Your task to perform on an android device: Go to Amazon Image 0: 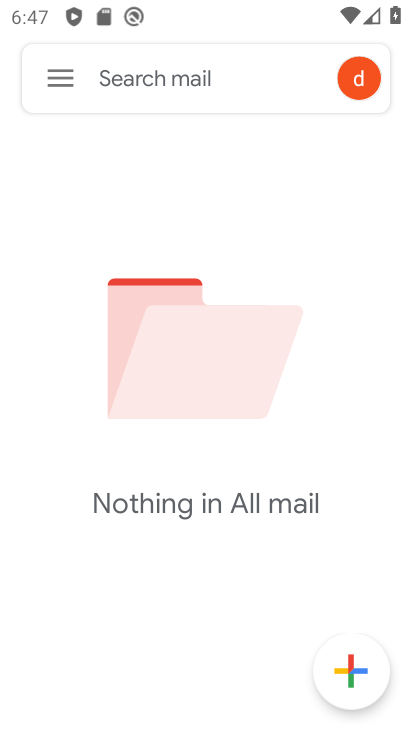
Step 0: press home button
Your task to perform on an android device: Go to Amazon Image 1: 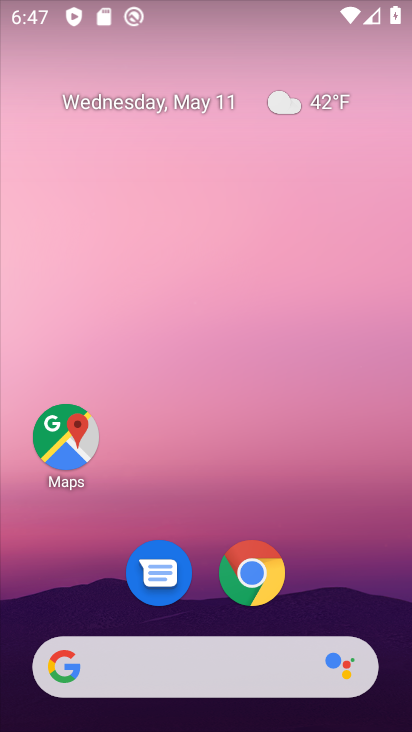
Step 1: click (237, 596)
Your task to perform on an android device: Go to Amazon Image 2: 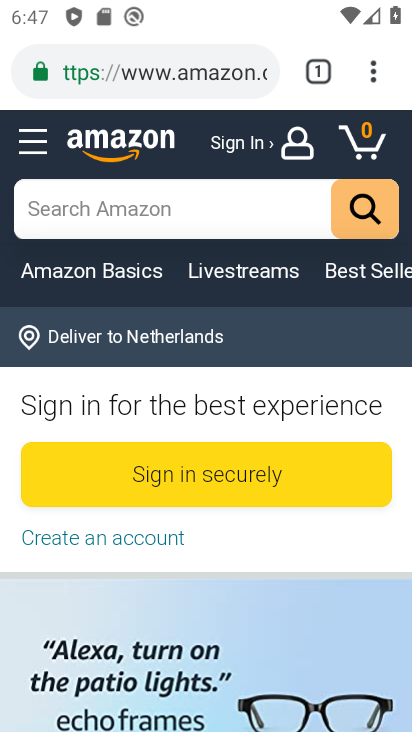
Step 2: task complete